Your task to perform on an android device: turn on priority inbox in the gmail app Image 0: 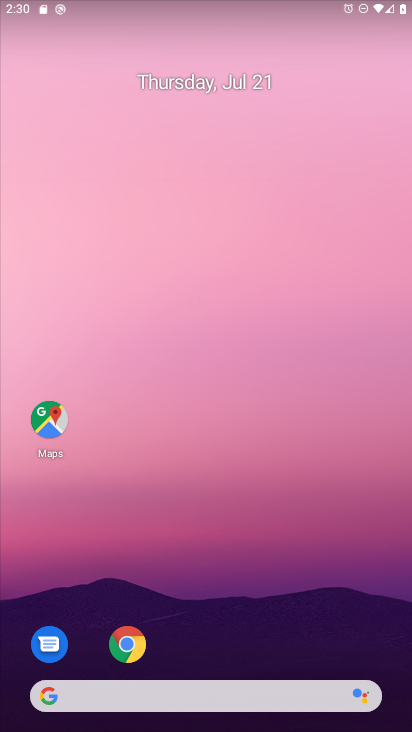
Step 0: drag from (218, 686) to (272, 360)
Your task to perform on an android device: turn on priority inbox in the gmail app Image 1: 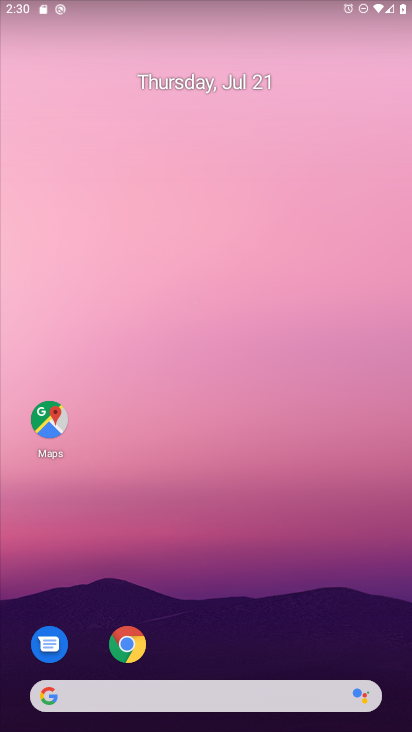
Step 1: drag from (145, 674) to (197, 74)
Your task to perform on an android device: turn on priority inbox in the gmail app Image 2: 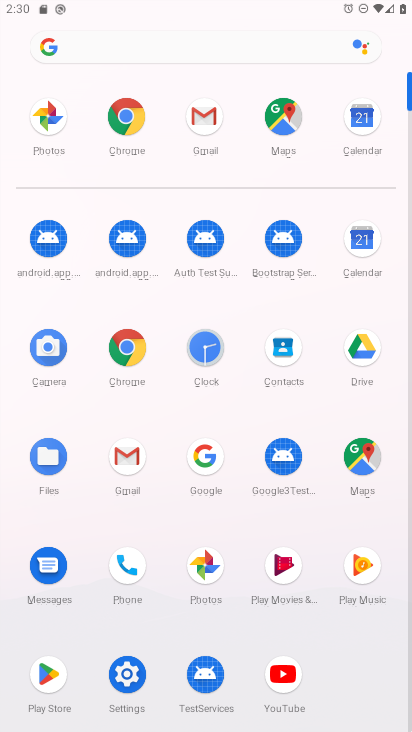
Step 2: click (212, 127)
Your task to perform on an android device: turn on priority inbox in the gmail app Image 3: 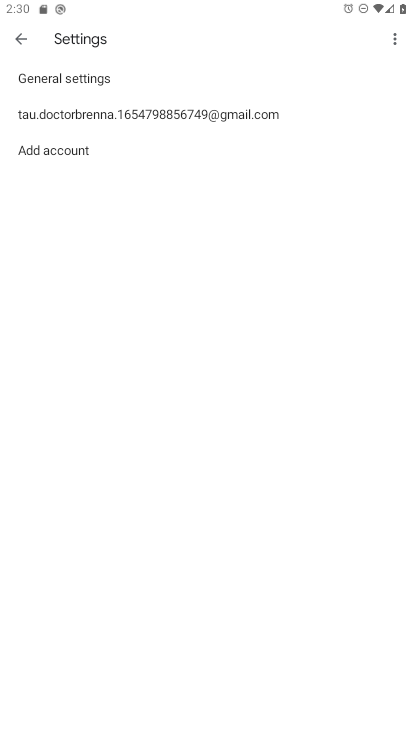
Step 3: click (113, 113)
Your task to perform on an android device: turn on priority inbox in the gmail app Image 4: 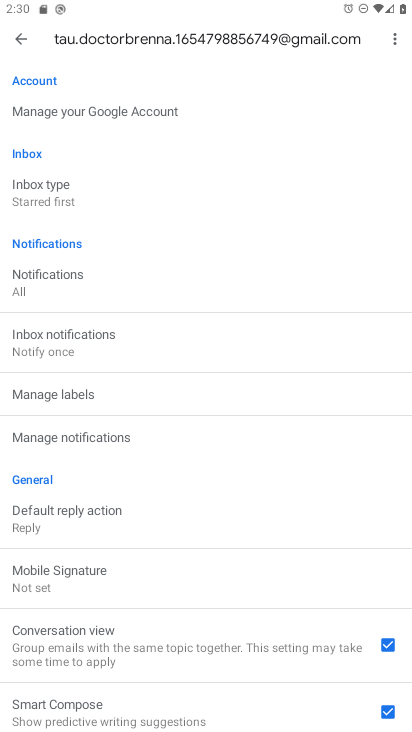
Step 4: click (54, 197)
Your task to perform on an android device: turn on priority inbox in the gmail app Image 5: 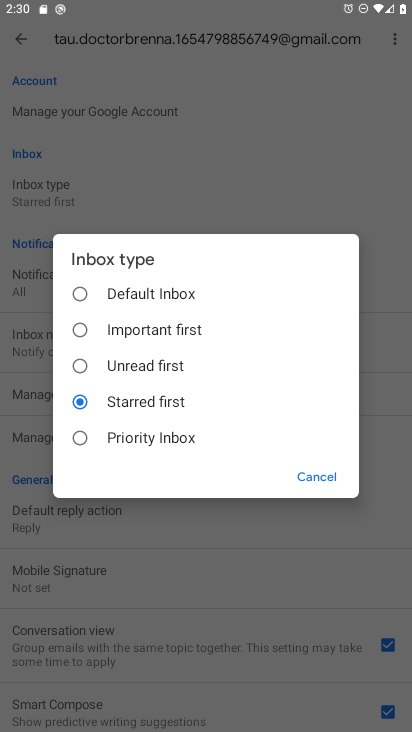
Step 5: click (126, 438)
Your task to perform on an android device: turn on priority inbox in the gmail app Image 6: 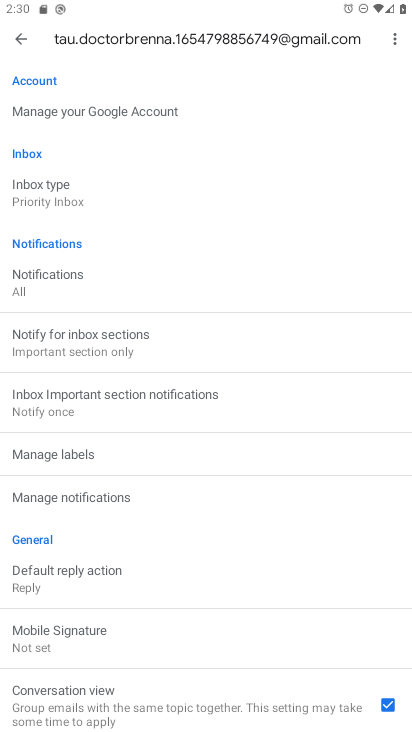
Step 6: task complete